Your task to perform on an android device: delete location history Image 0: 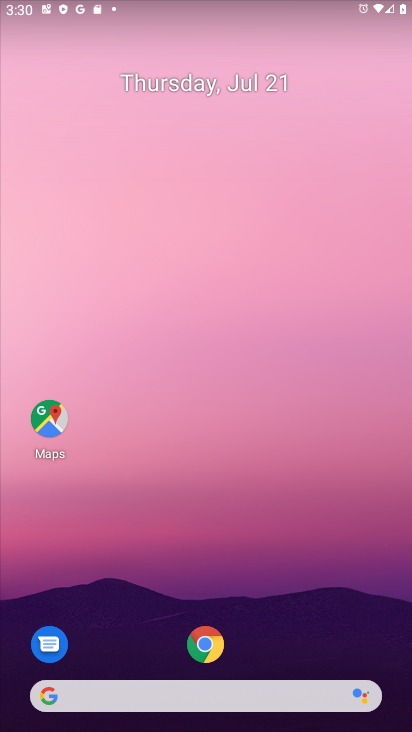
Step 0: press home button
Your task to perform on an android device: delete location history Image 1: 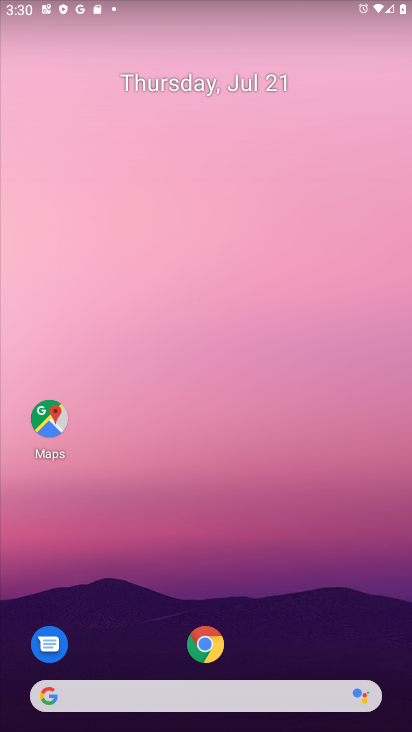
Step 1: drag from (302, 580) to (224, 69)
Your task to perform on an android device: delete location history Image 2: 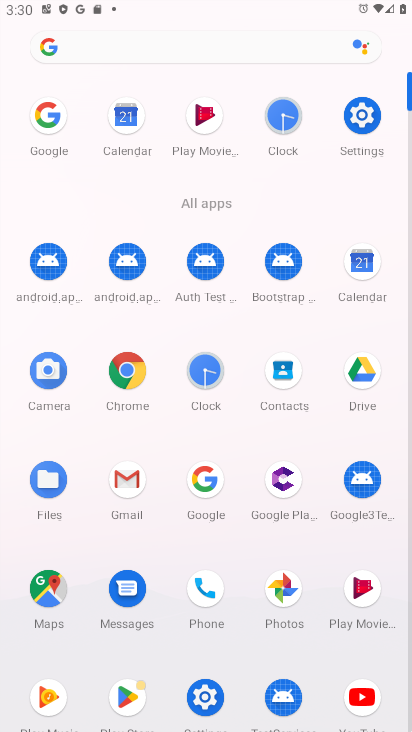
Step 2: click (356, 126)
Your task to perform on an android device: delete location history Image 3: 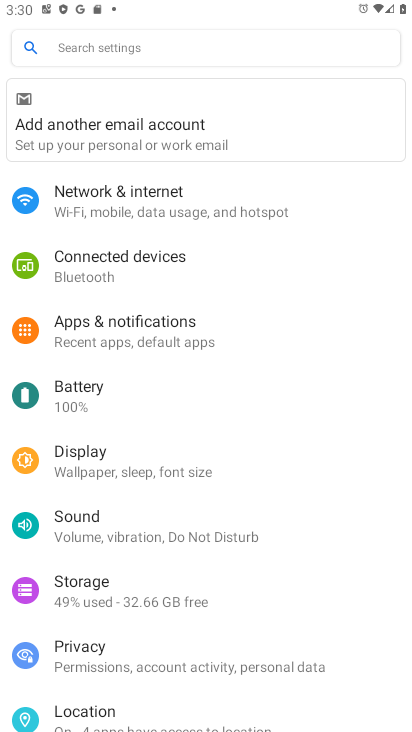
Step 3: click (92, 705)
Your task to perform on an android device: delete location history Image 4: 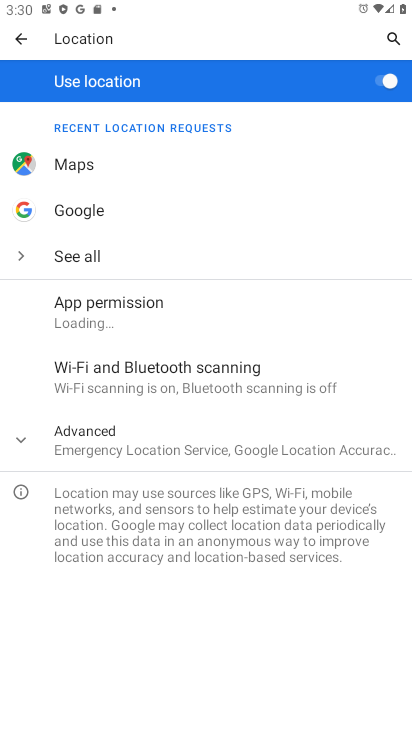
Step 4: click (14, 434)
Your task to perform on an android device: delete location history Image 5: 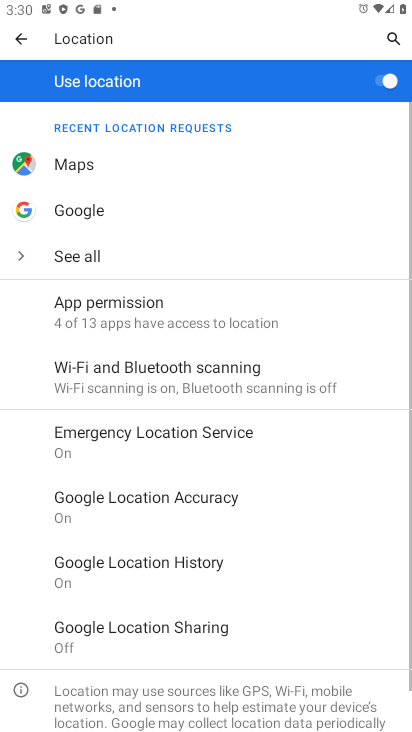
Step 5: click (139, 560)
Your task to perform on an android device: delete location history Image 6: 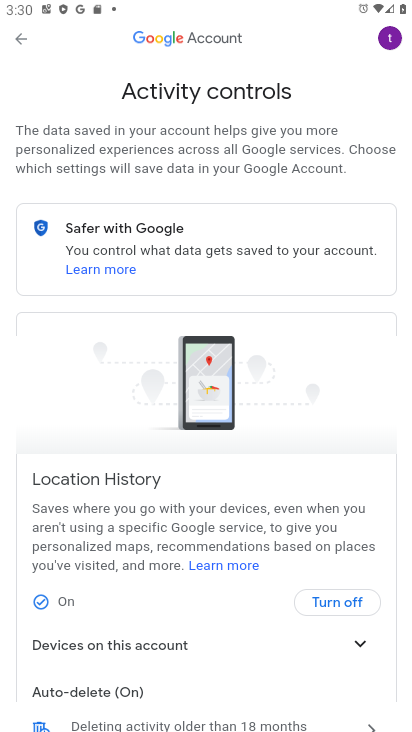
Step 6: drag from (244, 677) to (239, 393)
Your task to perform on an android device: delete location history Image 7: 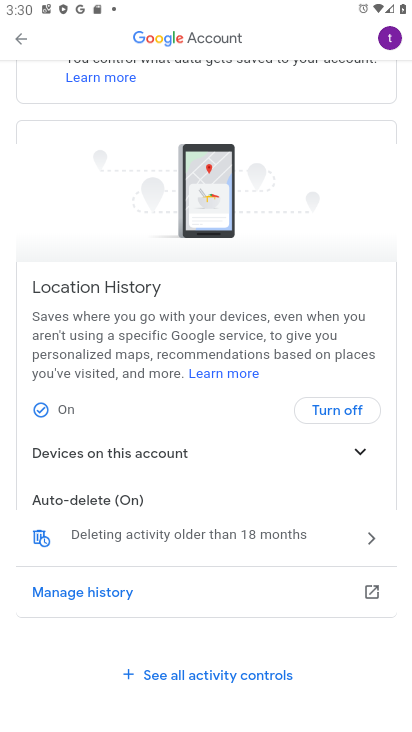
Step 7: click (42, 538)
Your task to perform on an android device: delete location history Image 8: 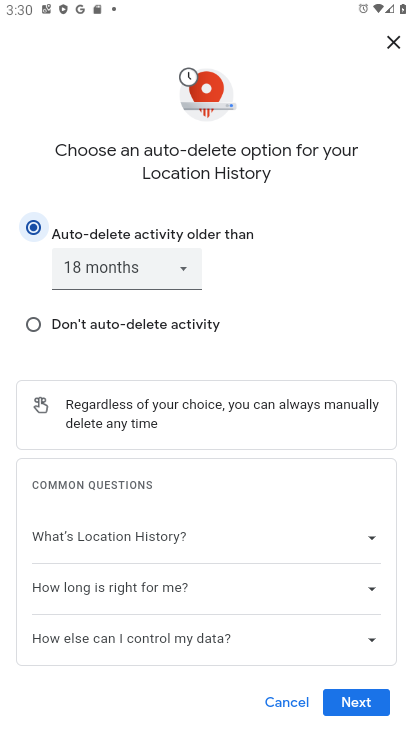
Step 8: click (365, 705)
Your task to perform on an android device: delete location history Image 9: 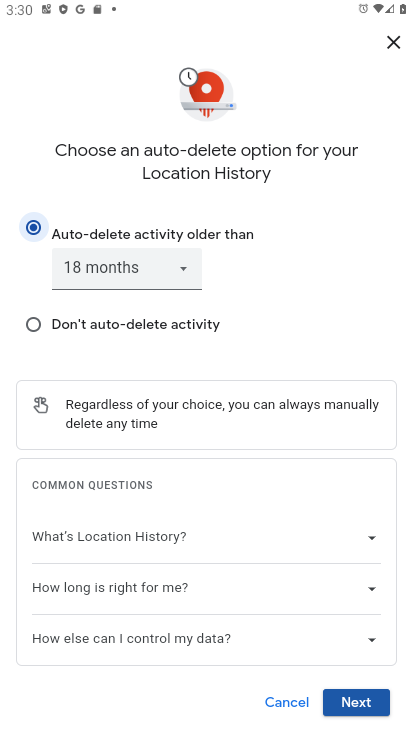
Step 9: click (362, 705)
Your task to perform on an android device: delete location history Image 10: 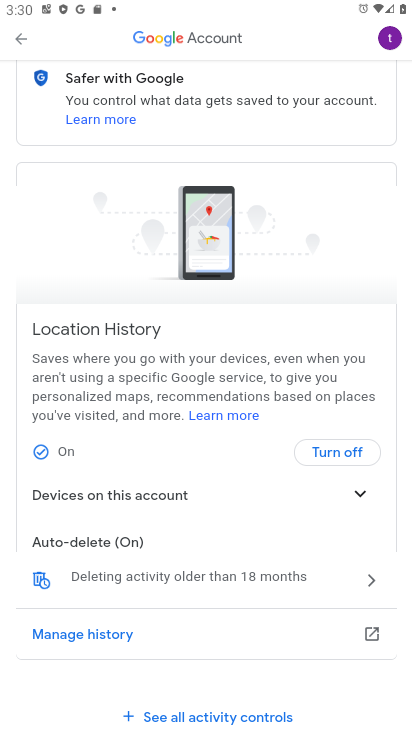
Step 10: task complete